Your task to perform on an android device: change the clock display to show seconds Image 0: 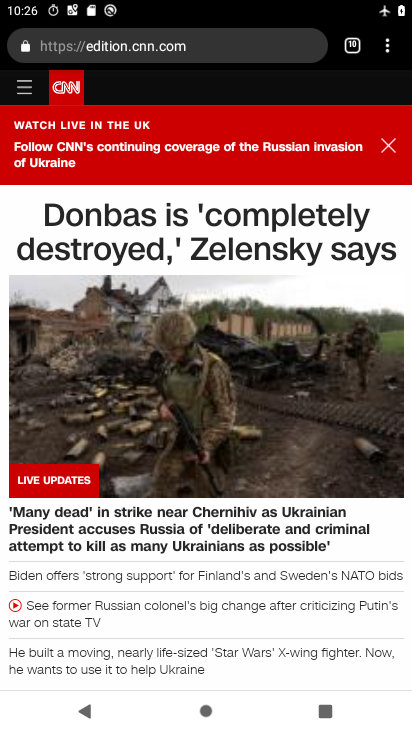
Step 0: press home button
Your task to perform on an android device: change the clock display to show seconds Image 1: 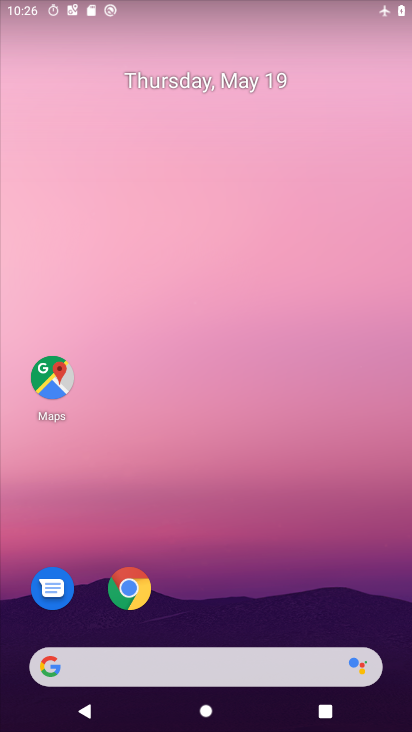
Step 1: drag from (170, 662) to (382, 67)
Your task to perform on an android device: change the clock display to show seconds Image 2: 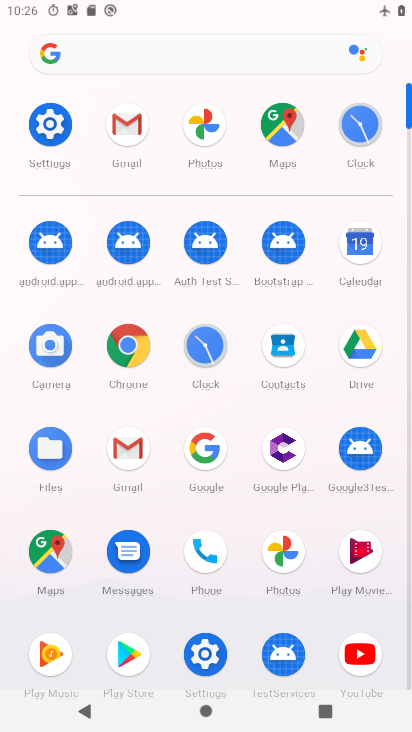
Step 2: click (351, 127)
Your task to perform on an android device: change the clock display to show seconds Image 3: 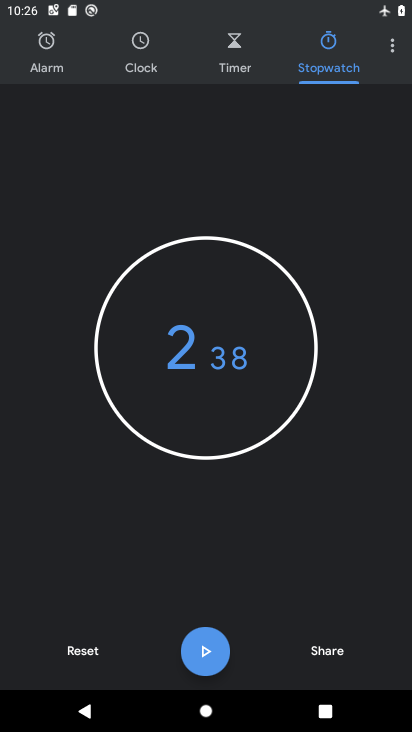
Step 3: click (401, 51)
Your task to perform on an android device: change the clock display to show seconds Image 4: 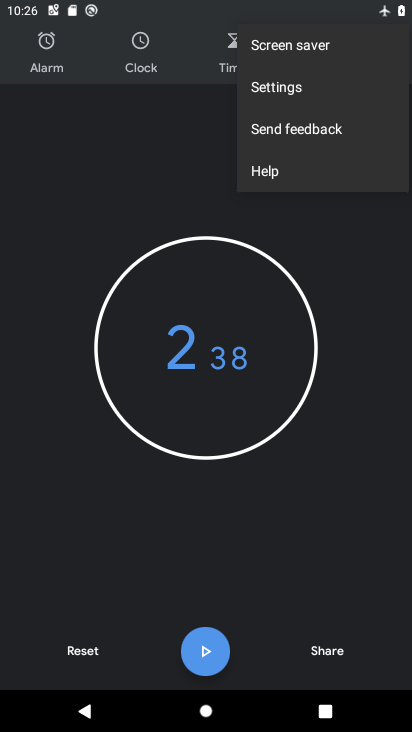
Step 4: click (258, 86)
Your task to perform on an android device: change the clock display to show seconds Image 5: 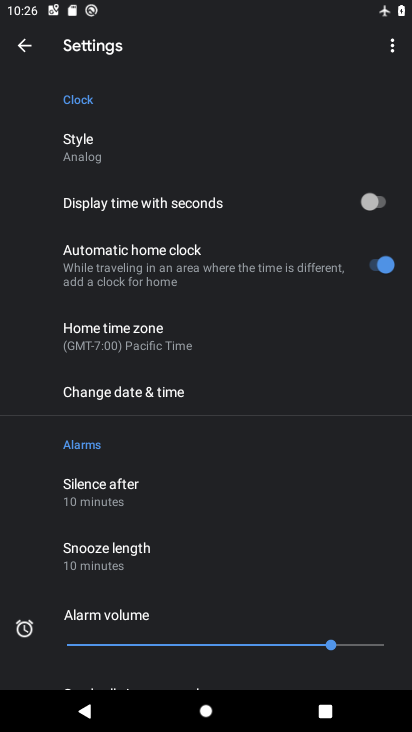
Step 5: click (382, 204)
Your task to perform on an android device: change the clock display to show seconds Image 6: 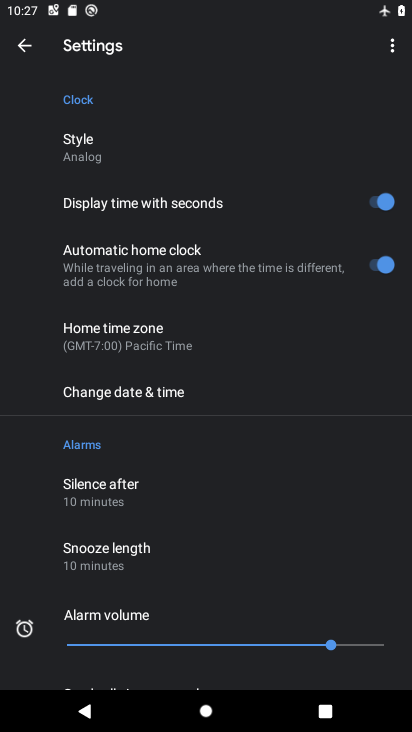
Step 6: task complete